Your task to perform on an android device: empty trash in google photos Image 0: 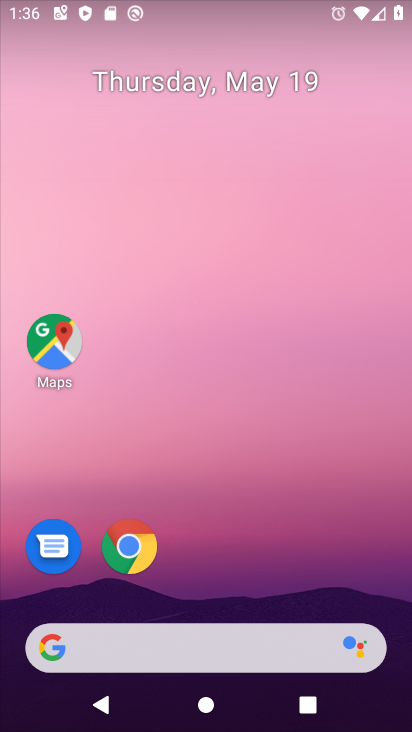
Step 0: drag from (192, 518) to (237, 220)
Your task to perform on an android device: empty trash in google photos Image 1: 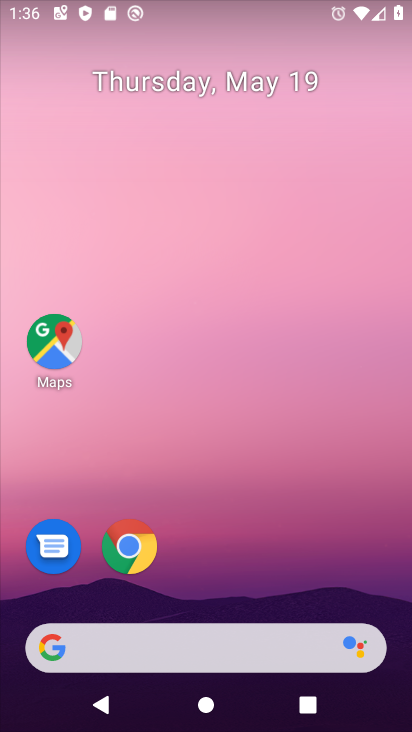
Step 1: drag from (198, 570) to (245, 173)
Your task to perform on an android device: empty trash in google photos Image 2: 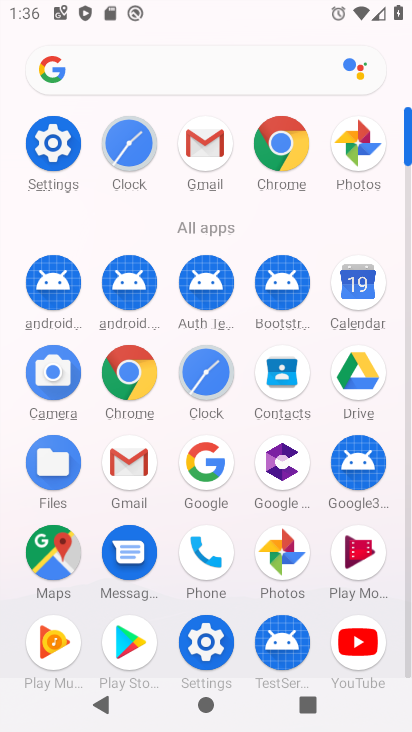
Step 2: click (361, 144)
Your task to perform on an android device: empty trash in google photos Image 3: 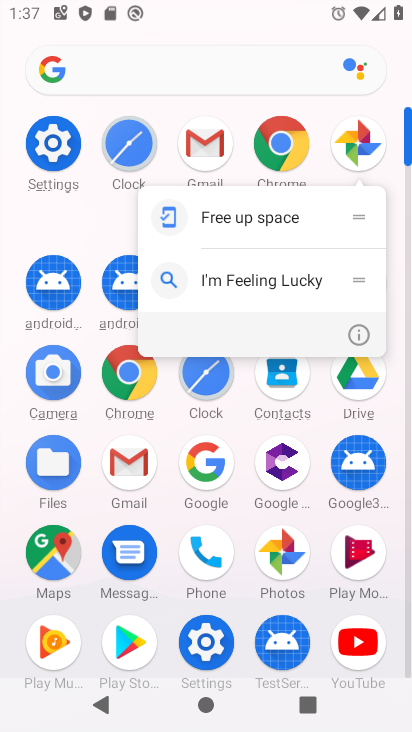
Step 3: click (359, 119)
Your task to perform on an android device: empty trash in google photos Image 4: 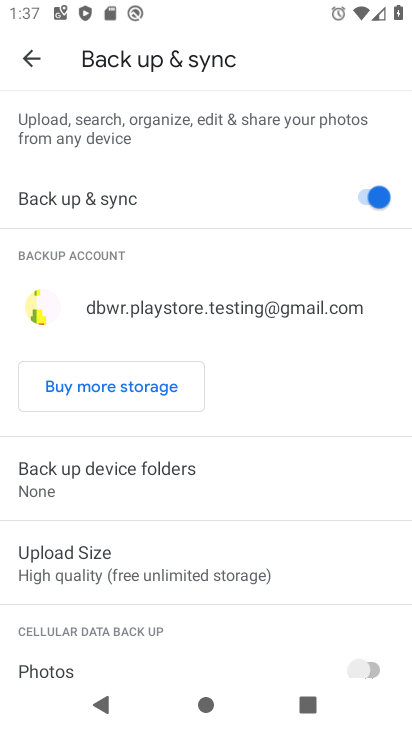
Step 4: click (42, 58)
Your task to perform on an android device: empty trash in google photos Image 5: 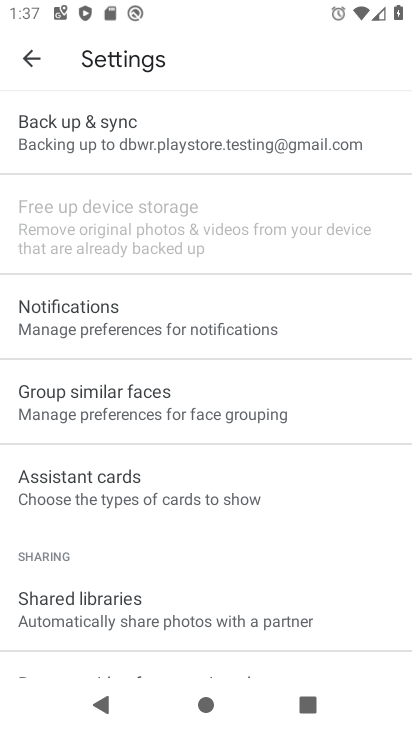
Step 5: click (43, 63)
Your task to perform on an android device: empty trash in google photos Image 6: 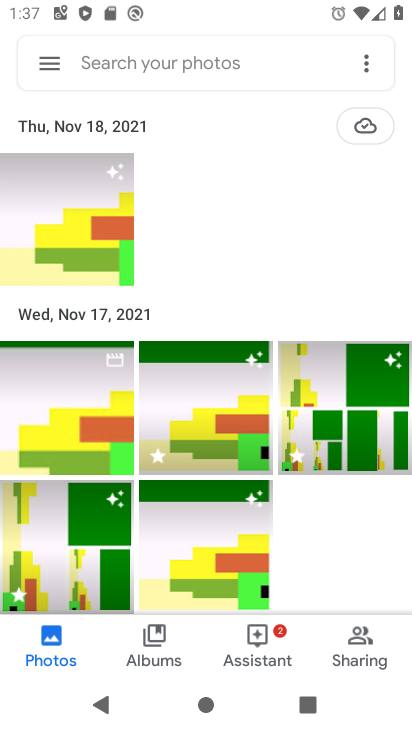
Step 6: click (62, 57)
Your task to perform on an android device: empty trash in google photos Image 7: 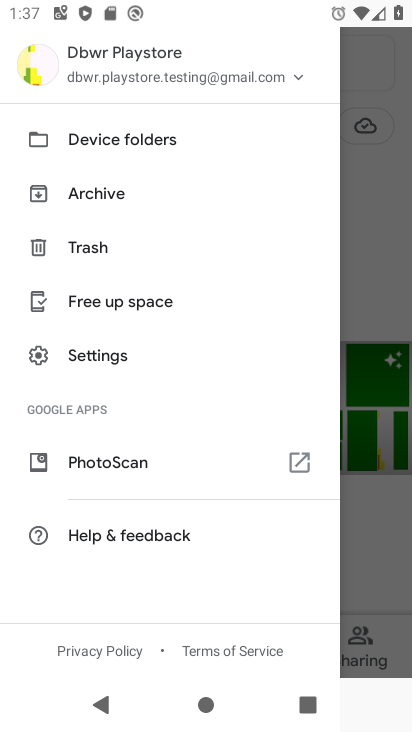
Step 7: click (117, 248)
Your task to perform on an android device: empty trash in google photos Image 8: 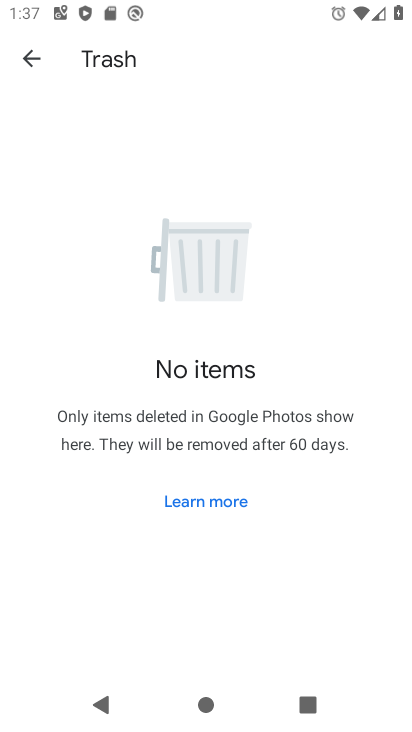
Step 8: task complete